Your task to perform on an android device: check battery use Image 0: 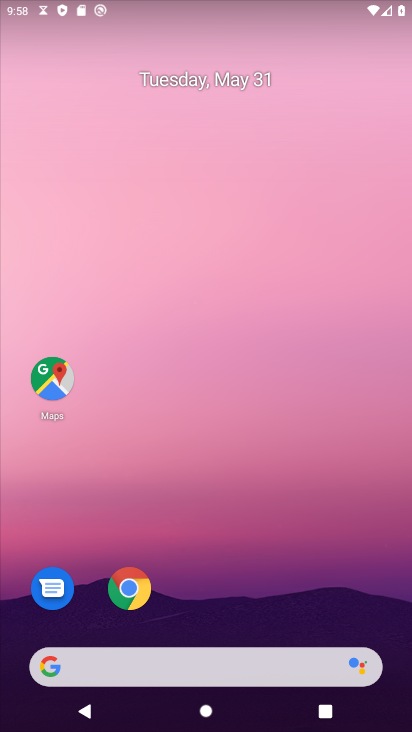
Step 0: drag from (261, 519) to (222, 110)
Your task to perform on an android device: check battery use Image 1: 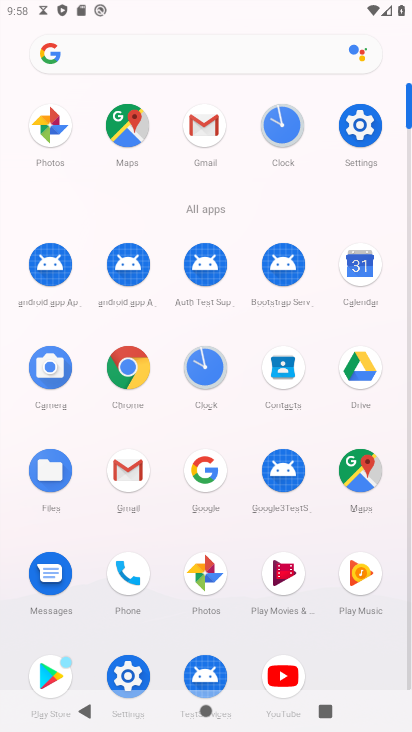
Step 1: click (361, 122)
Your task to perform on an android device: check battery use Image 2: 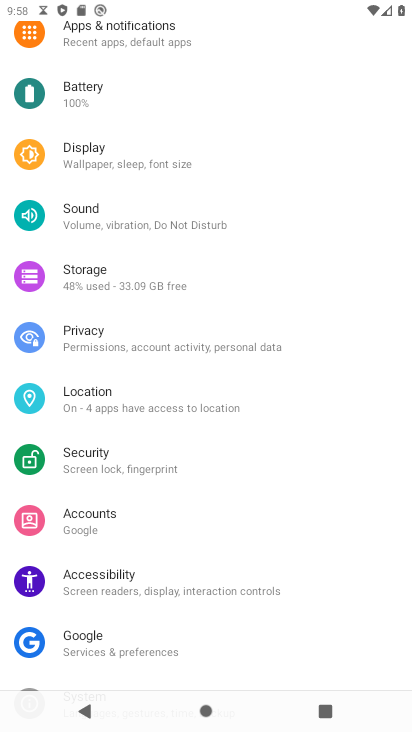
Step 2: click (90, 102)
Your task to perform on an android device: check battery use Image 3: 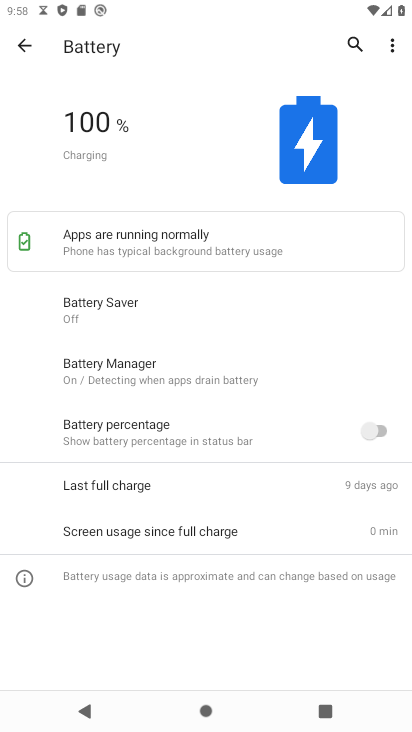
Step 3: click (393, 41)
Your task to perform on an android device: check battery use Image 4: 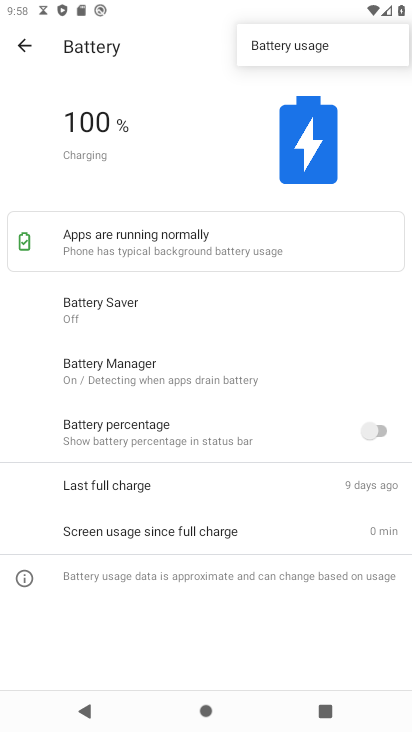
Step 4: click (305, 46)
Your task to perform on an android device: check battery use Image 5: 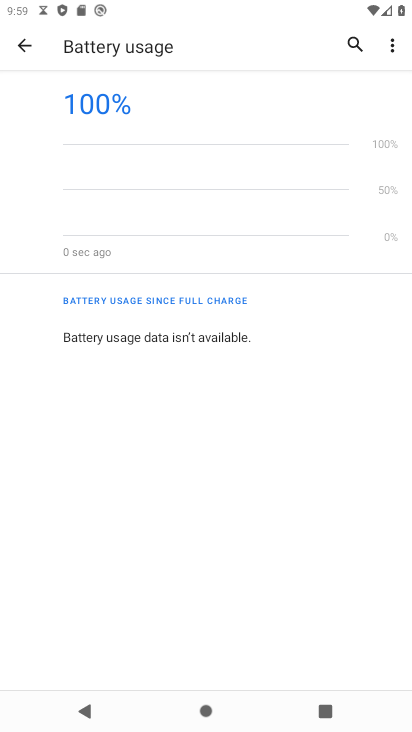
Step 5: task complete